Your task to perform on an android device: turn on showing notifications on the lock screen Image 0: 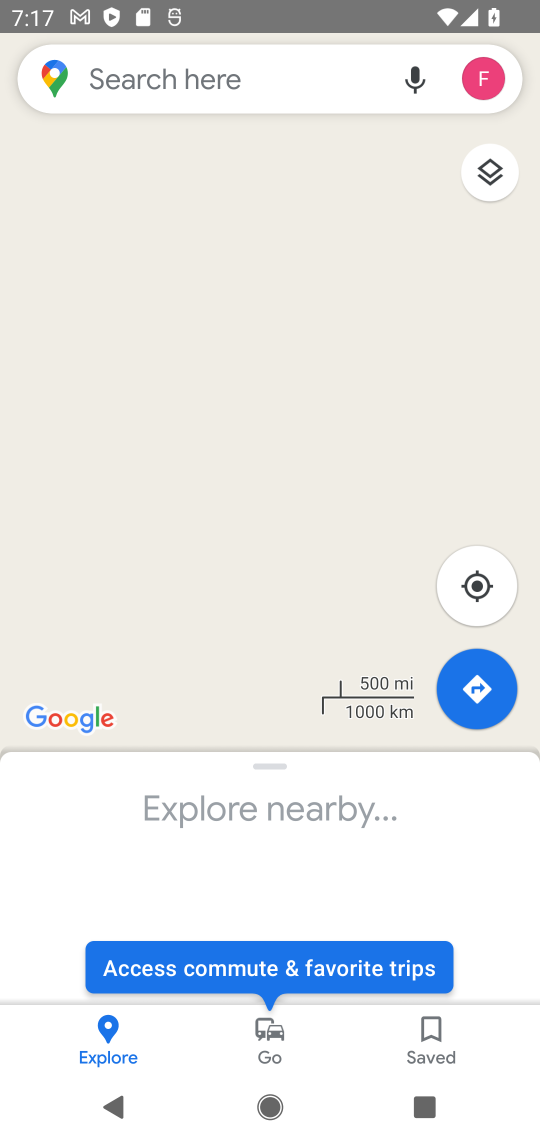
Step 0: press home button
Your task to perform on an android device: turn on showing notifications on the lock screen Image 1: 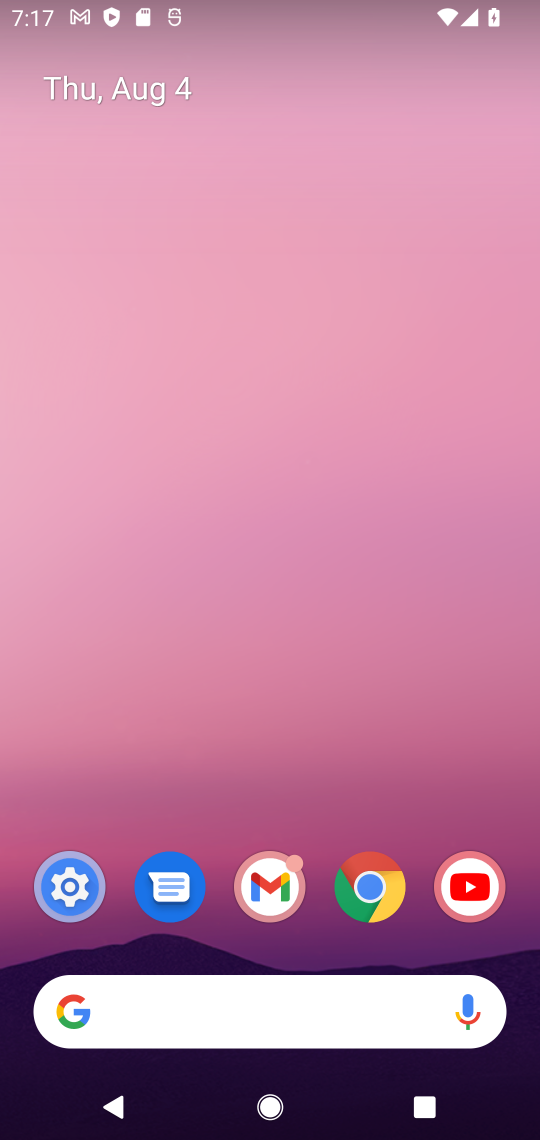
Step 1: drag from (188, 947) to (237, 392)
Your task to perform on an android device: turn on showing notifications on the lock screen Image 2: 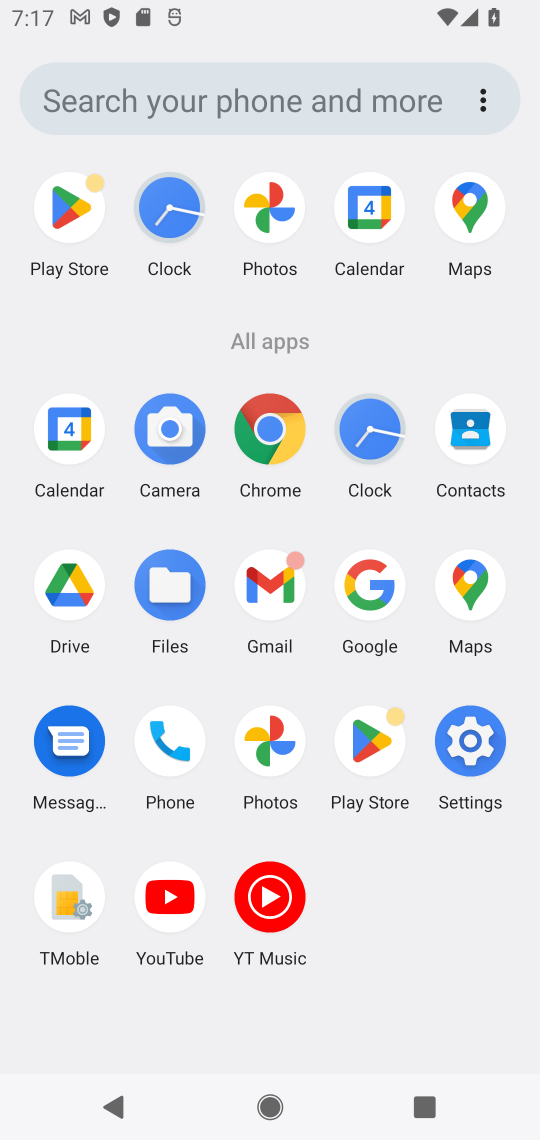
Step 2: click (476, 739)
Your task to perform on an android device: turn on showing notifications on the lock screen Image 3: 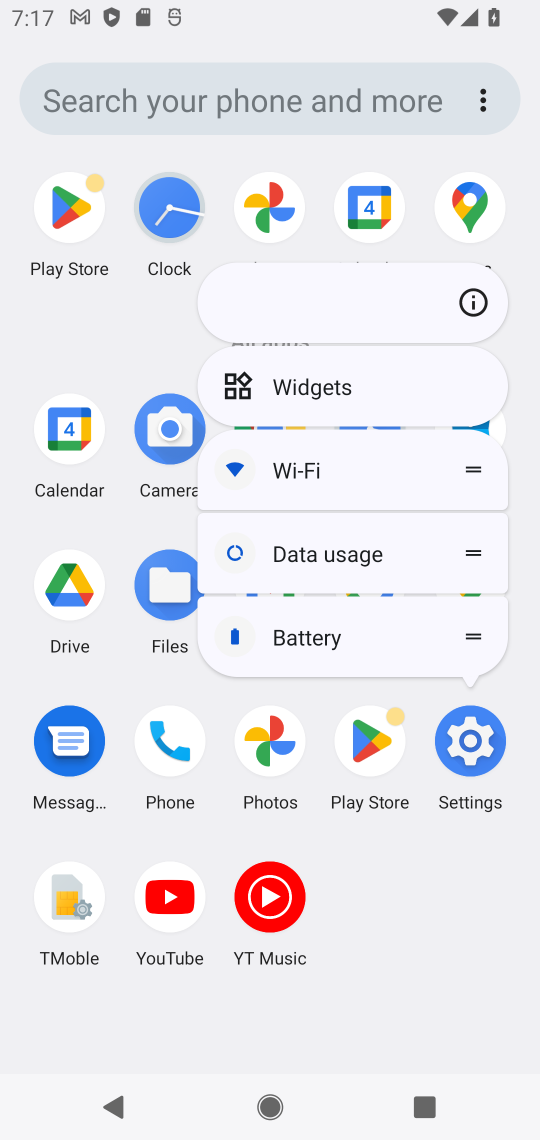
Step 3: click (474, 747)
Your task to perform on an android device: turn on showing notifications on the lock screen Image 4: 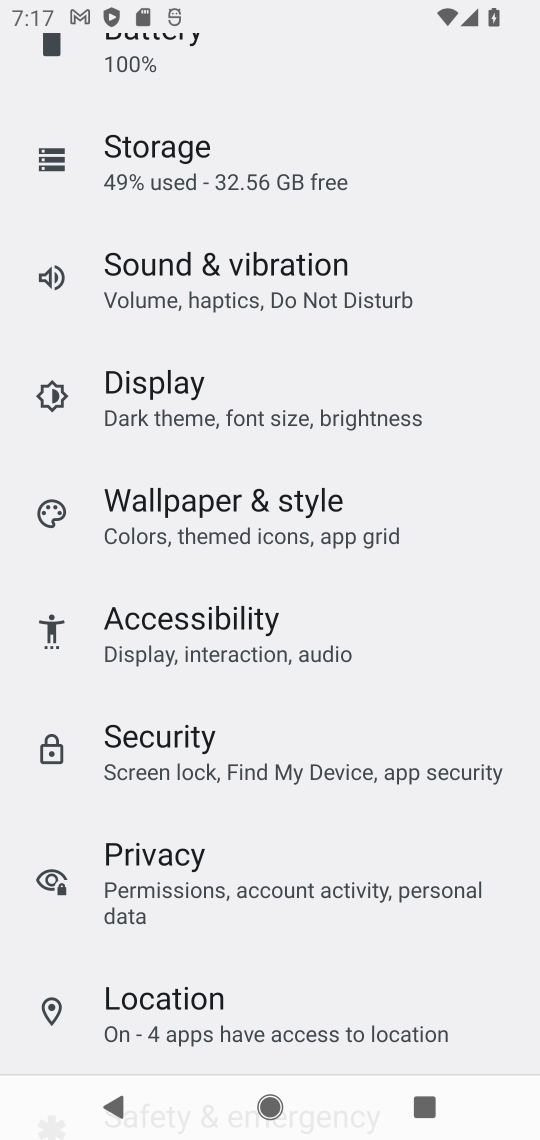
Step 4: click (144, 1003)
Your task to perform on an android device: turn on showing notifications on the lock screen Image 5: 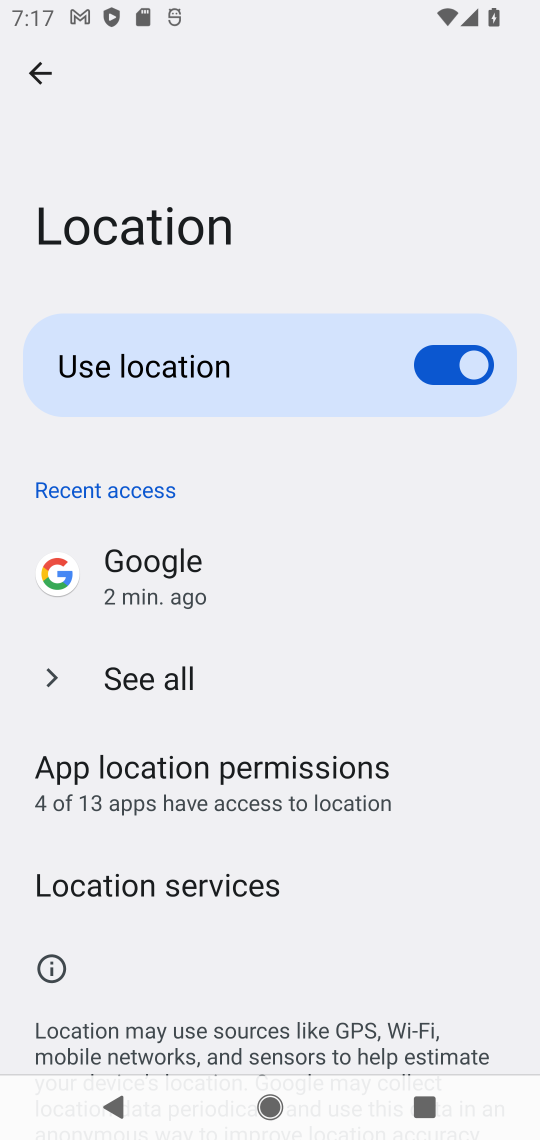
Step 5: press back button
Your task to perform on an android device: turn on showing notifications on the lock screen Image 6: 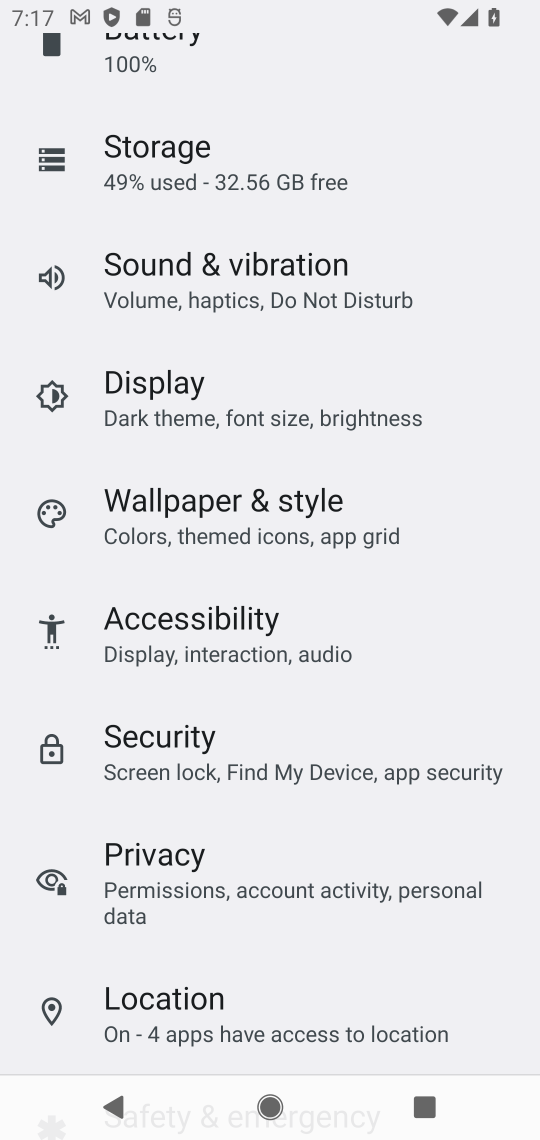
Step 6: click (175, 888)
Your task to perform on an android device: turn on showing notifications on the lock screen Image 7: 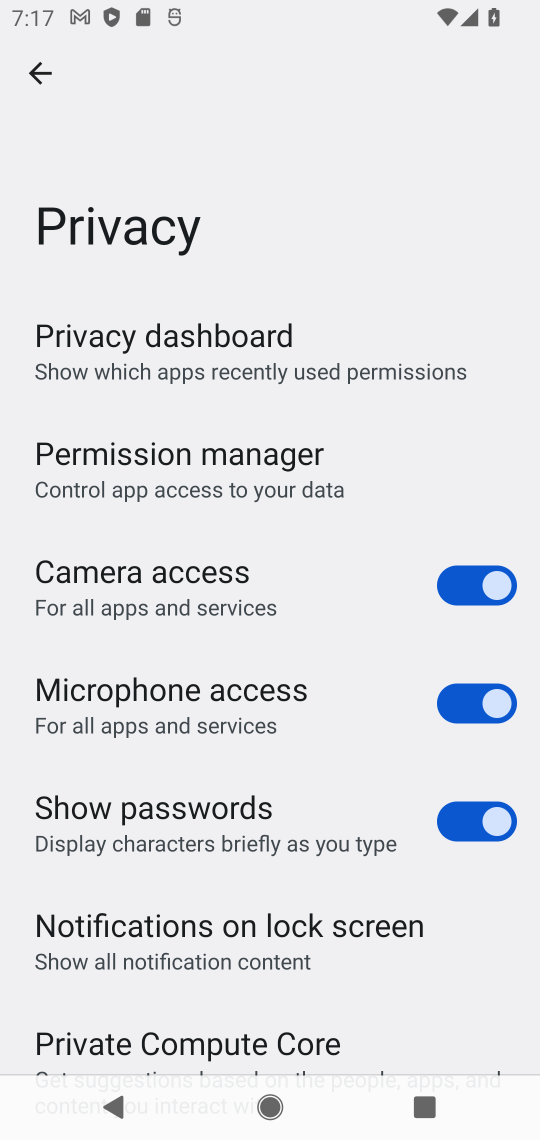
Step 7: click (162, 928)
Your task to perform on an android device: turn on showing notifications on the lock screen Image 8: 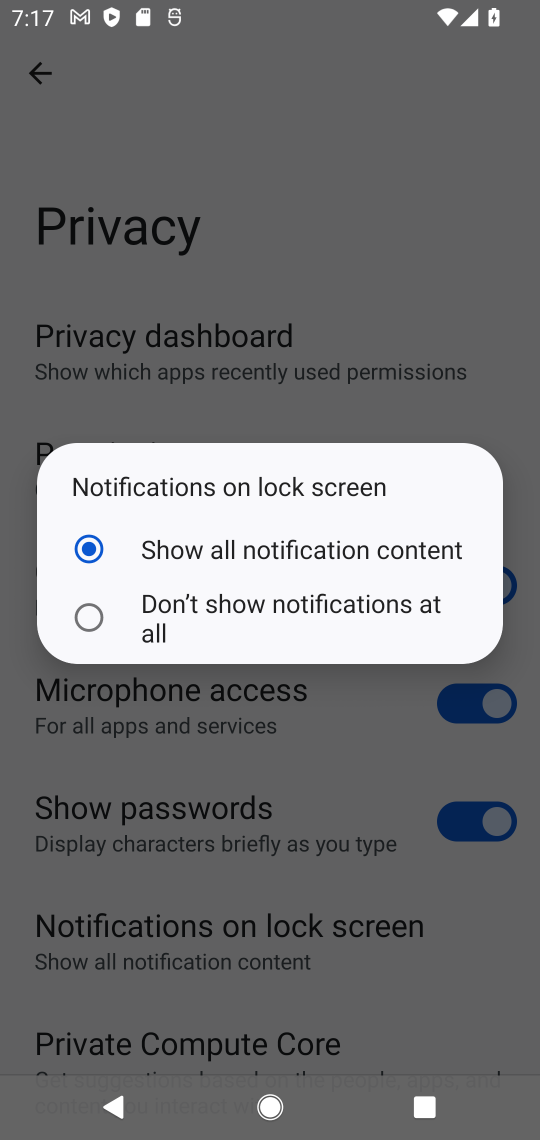
Step 8: task complete